Your task to perform on an android device: What's the weather? Image 0: 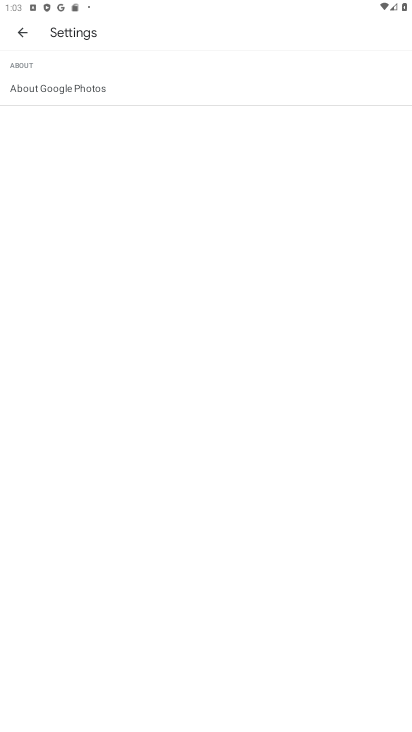
Step 0: click (28, 24)
Your task to perform on an android device: What's the weather? Image 1: 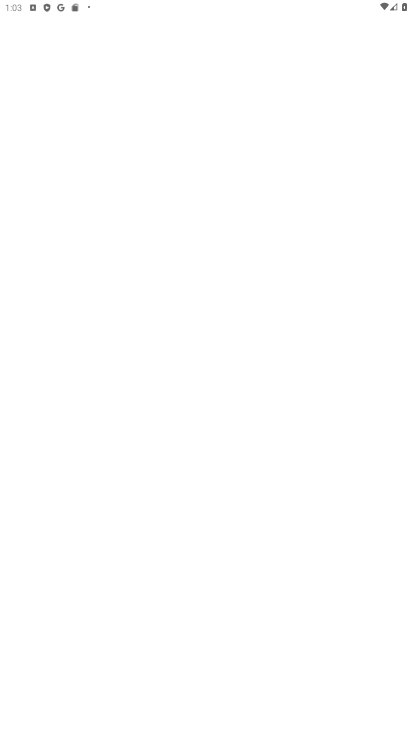
Step 1: press home button
Your task to perform on an android device: What's the weather? Image 2: 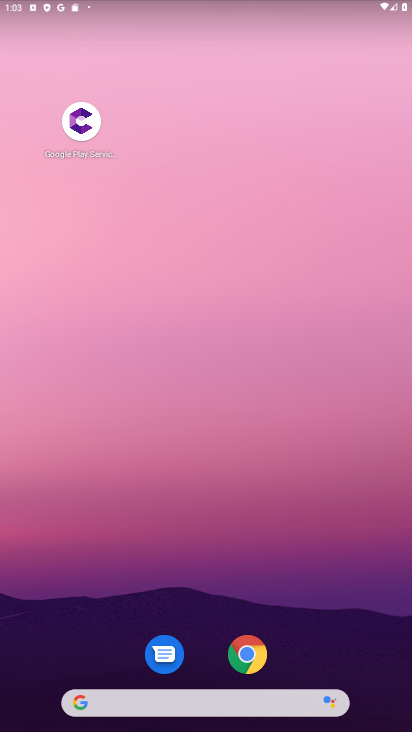
Step 2: click (219, 694)
Your task to perform on an android device: What's the weather? Image 3: 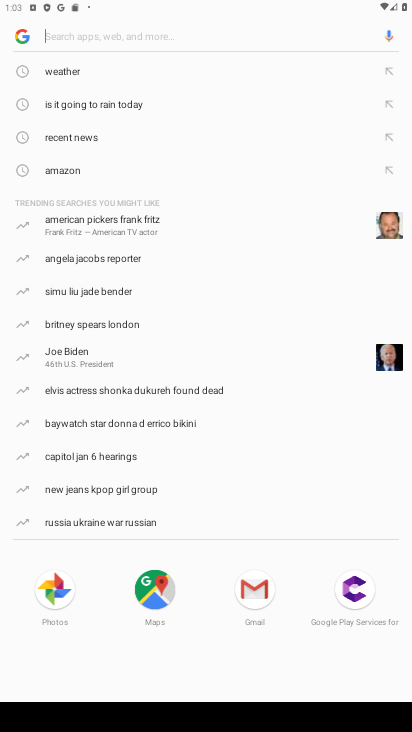
Step 3: drag from (326, 551) to (314, 510)
Your task to perform on an android device: What's the weather? Image 4: 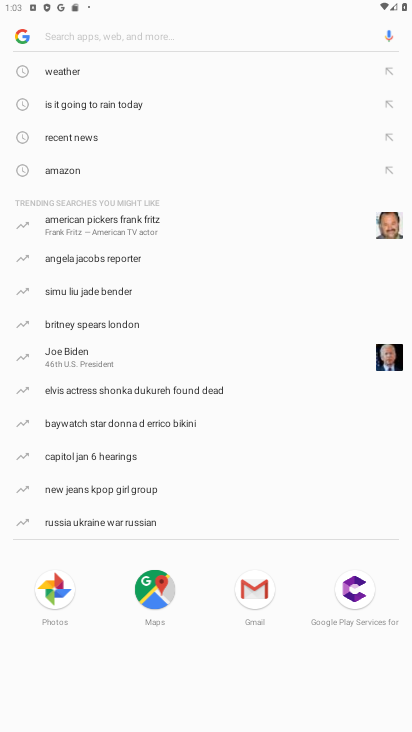
Step 4: drag from (380, 698) to (366, 598)
Your task to perform on an android device: What's the weather? Image 5: 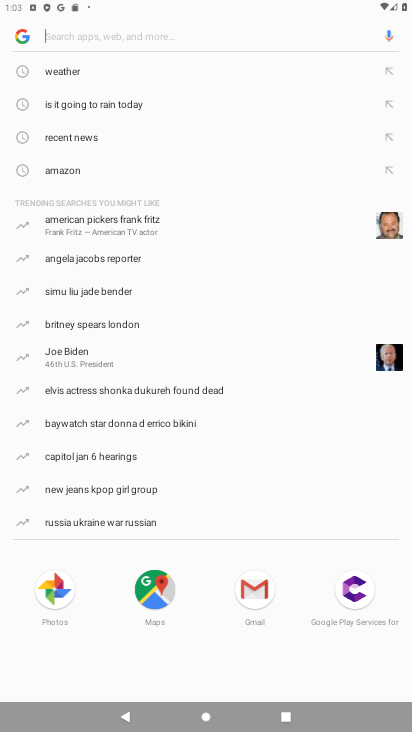
Step 5: drag from (378, 719) to (378, 626)
Your task to perform on an android device: What's the weather? Image 6: 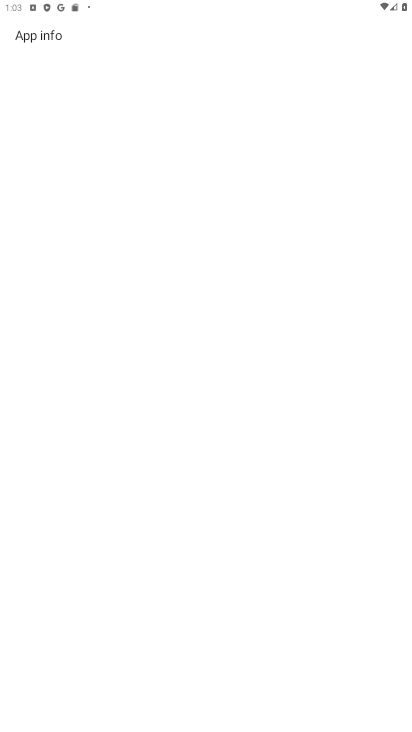
Step 6: click (75, 64)
Your task to perform on an android device: What's the weather? Image 7: 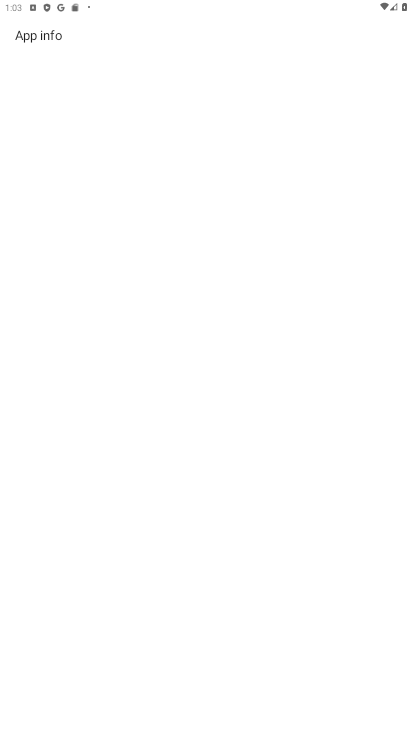
Step 7: press home button
Your task to perform on an android device: What's the weather? Image 8: 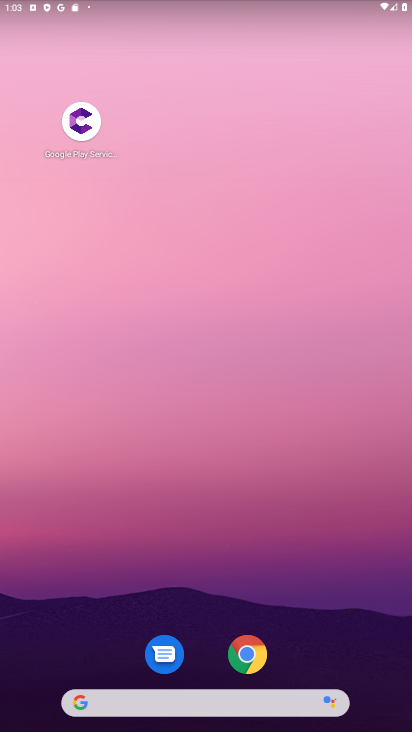
Step 8: click (204, 710)
Your task to perform on an android device: What's the weather? Image 9: 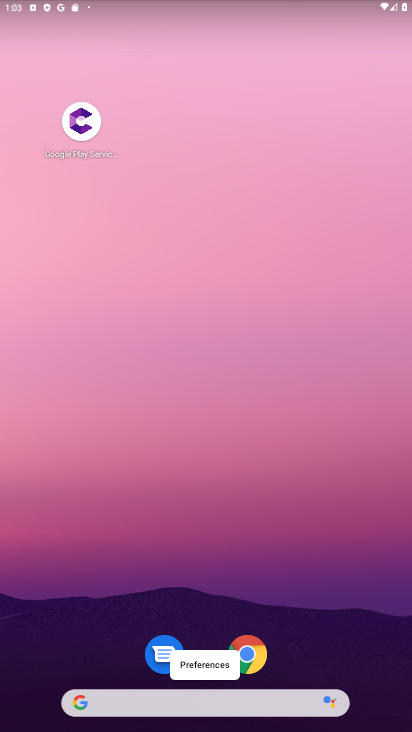
Step 9: click (196, 709)
Your task to perform on an android device: What's the weather? Image 10: 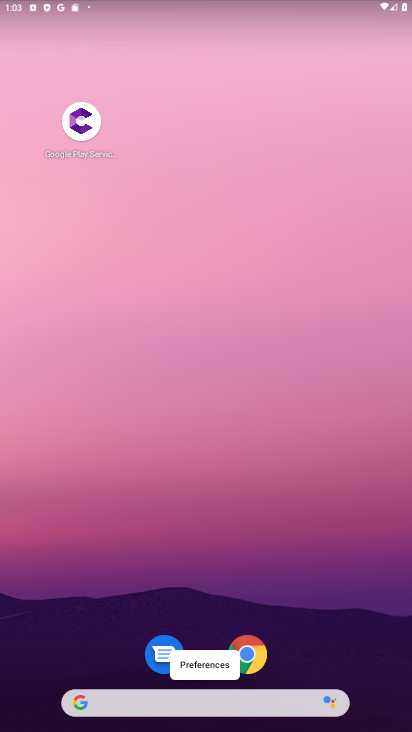
Step 10: click (165, 701)
Your task to perform on an android device: What's the weather? Image 11: 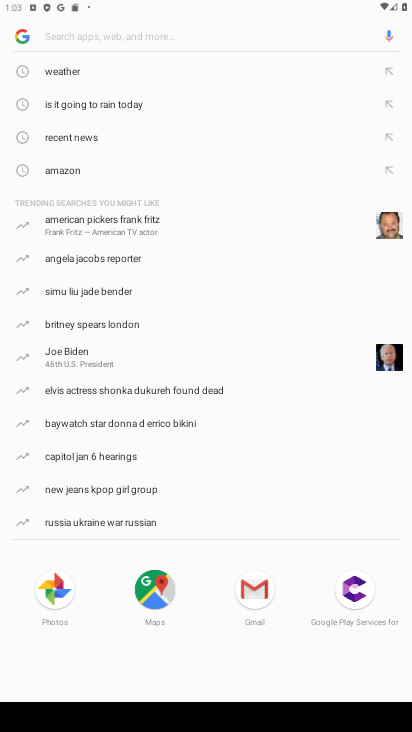
Step 11: click (85, 73)
Your task to perform on an android device: What's the weather? Image 12: 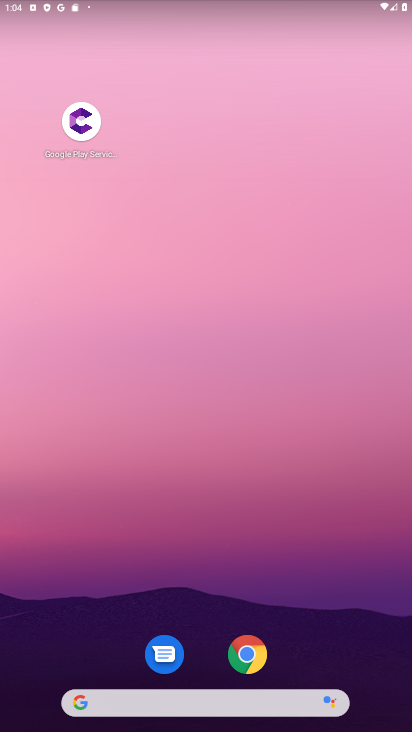
Step 12: press home button
Your task to perform on an android device: What's the weather? Image 13: 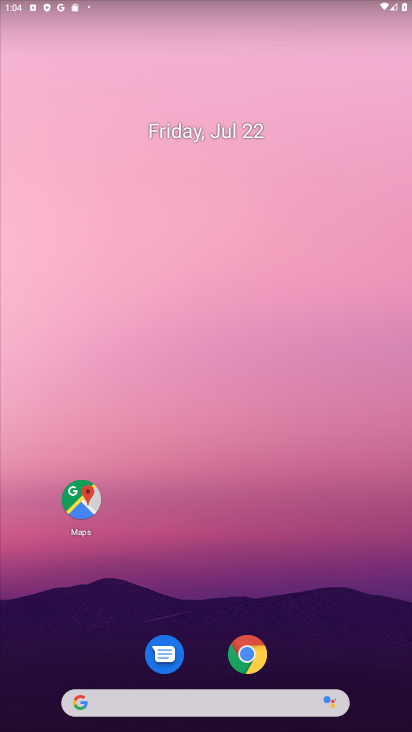
Step 13: click (209, 703)
Your task to perform on an android device: What's the weather? Image 14: 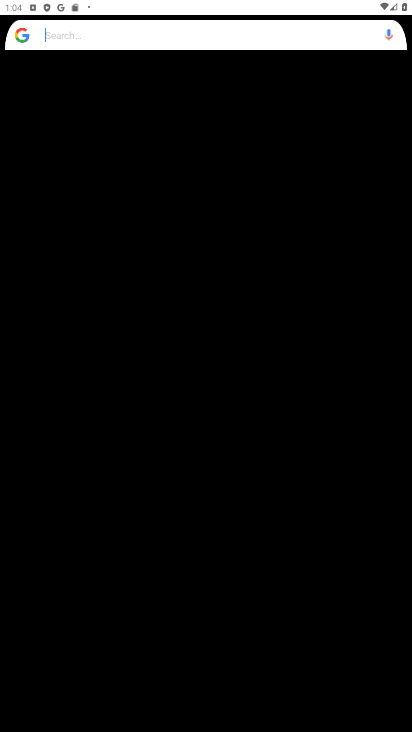
Step 14: click (146, 47)
Your task to perform on an android device: What's the weather? Image 15: 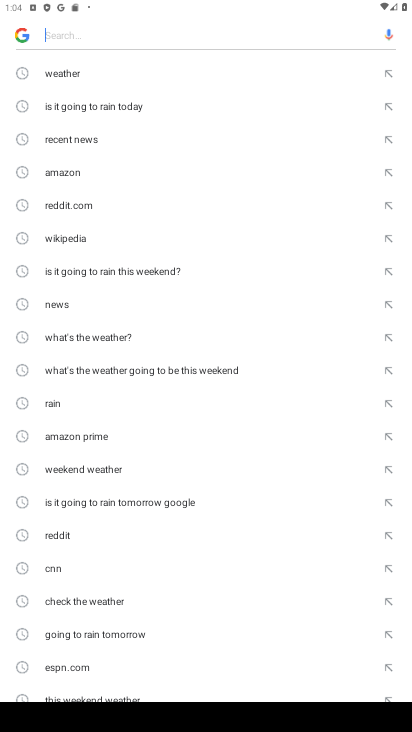
Step 15: click (81, 71)
Your task to perform on an android device: What's the weather? Image 16: 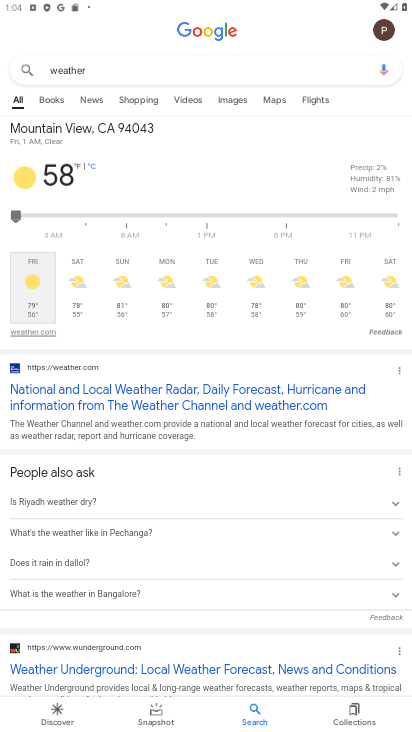
Step 16: task complete